Your task to perform on an android device: Search for Mexican restaurants on Maps Image 0: 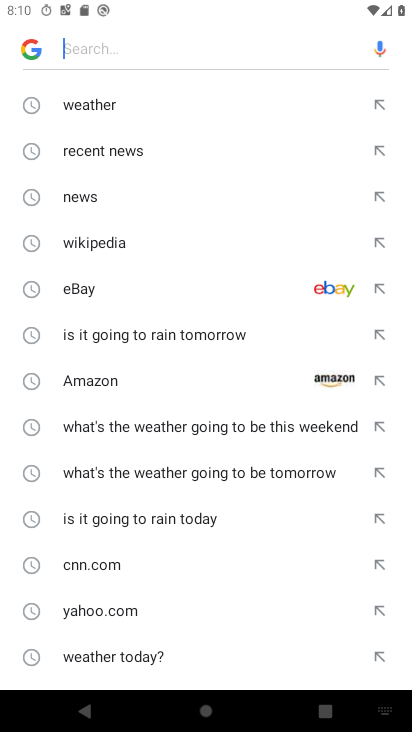
Step 0: press back button
Your task to perform on an android device: Search for Mexican restaurants on Maps Image 1: 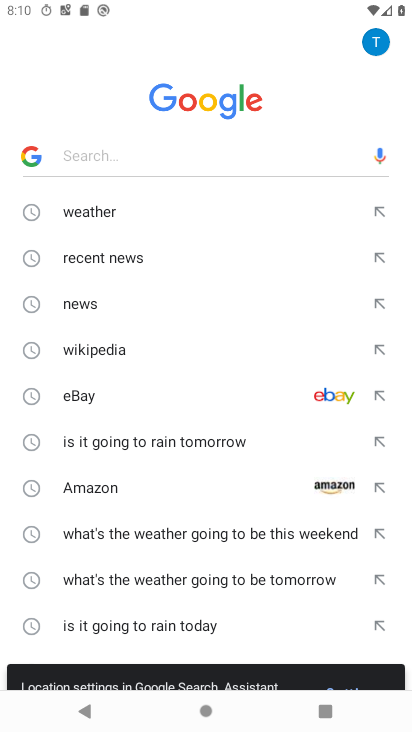
Step 1: press home button
Your task to perform on an android device: Search for Mexican restaurants on Maps Image 2: 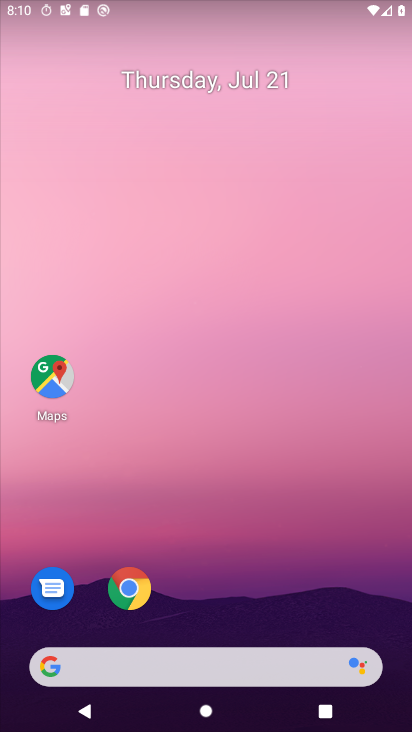
Step 2: drag from (263, 677) to (186, 241)
Your task to perform on an android device: Search for Mexican restaurants on Maps Image 3: 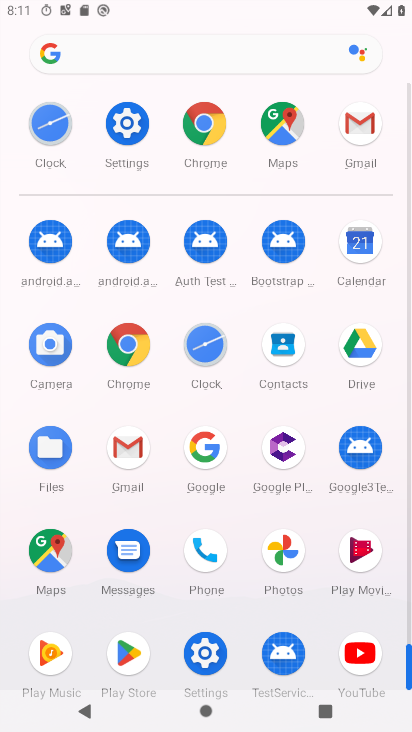
Step 3: click (51, 553)
Your task to perform on an android device: Search for Mexican restaurants on Maps Image 4: 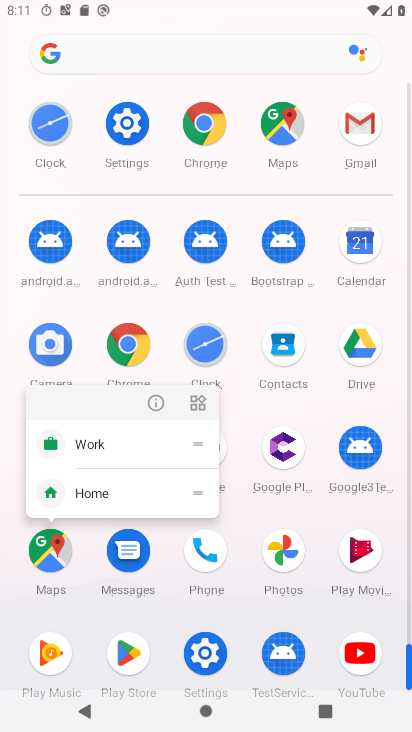
Step 4: click (52, 541)
Your task to perform on an android device: Search for Mexican restaurants on Maps Image 5: 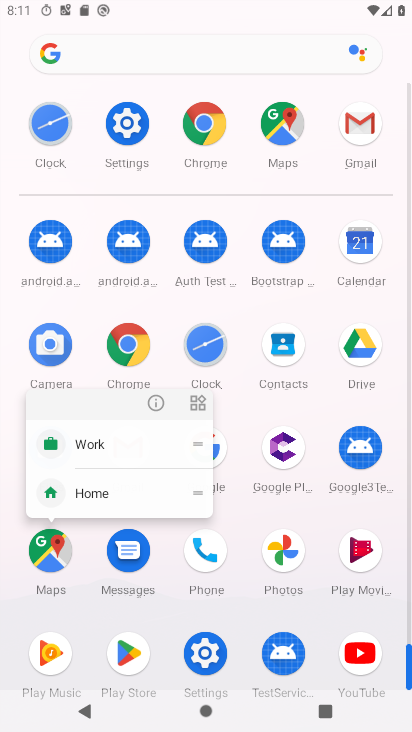
Step 5: click (51, 544)
Your task to perform on an android device: Search for Mexican restaurants on Maps Image 6: 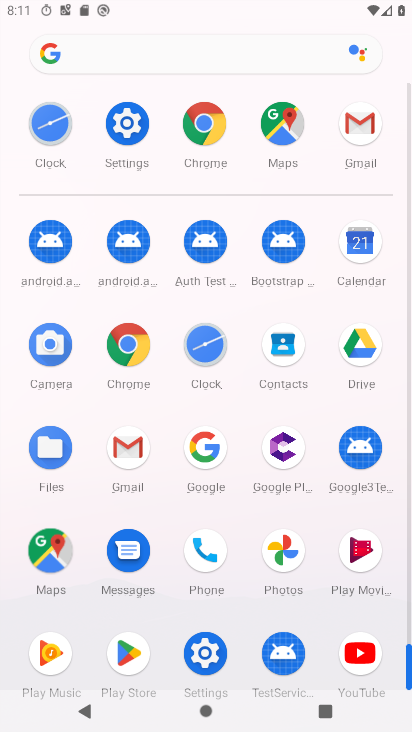
Step 6: click (50, 545)
Your task to perform on an android device: Search for Mexican restaurants on Maps Image 7: 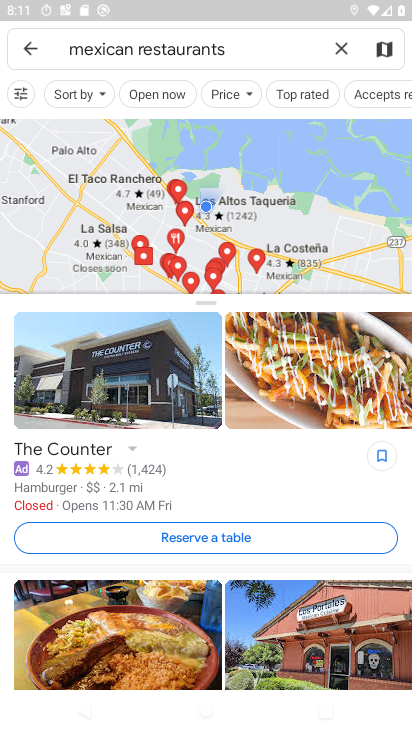
Step 7: task complete